Your task to perform on an android device: clear all cookies in the chrome app Image 0: 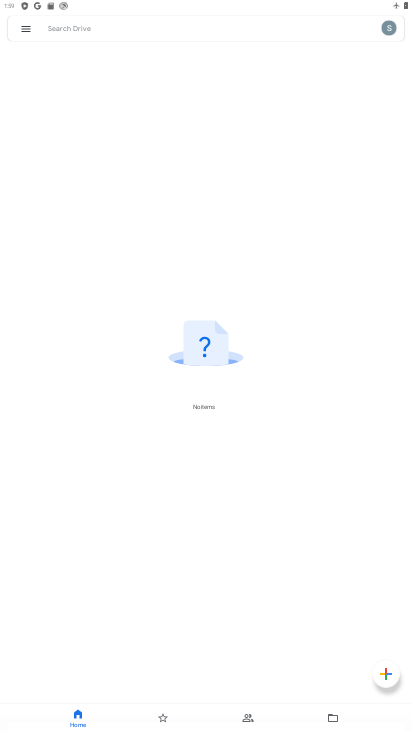
Step 0: press home button
Your task to perform on an android device: clear all cookies in the chrome app Image 1: 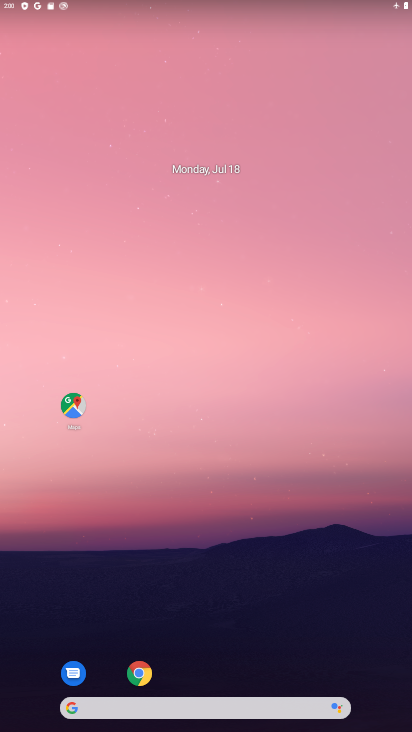
Step 1: click (141, 676)
Your task to perform on an android device: clear all cookies in the chrome app Image 2: 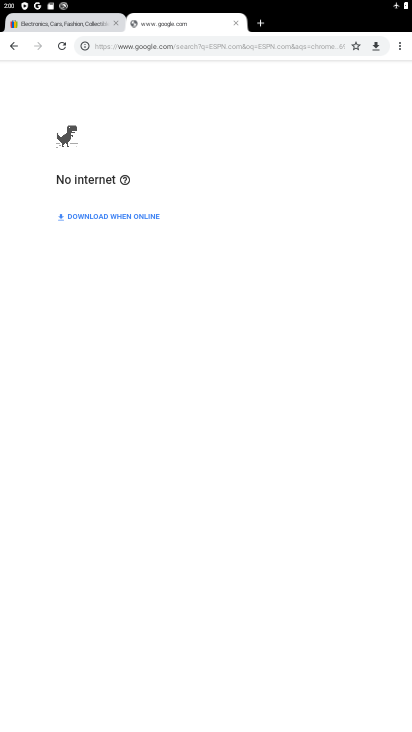
Step 2: click (400, 48)
Your task to perform on an android device: clear all cookies in the chrome app Image 3: 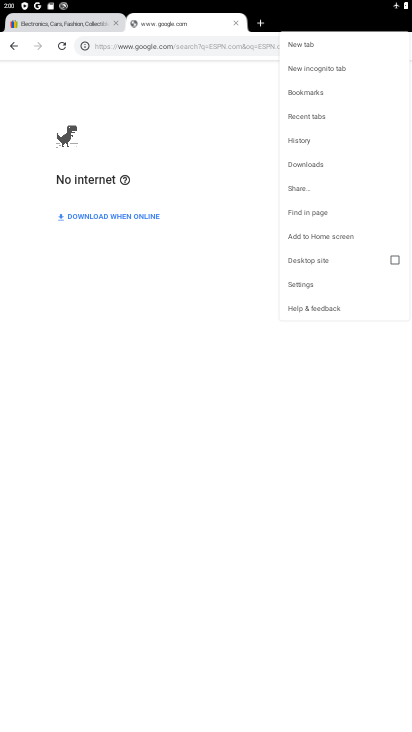
Step 3: click (303, 283)
Your task to perform on an android device: clear all cookies in the chrome app Image 4: 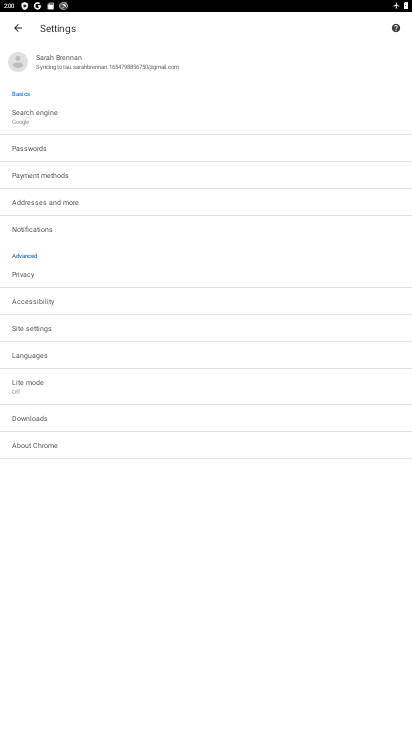
Step 4: click (25, 269)
Your task to perform on an android device: clear all cookies in the chrome app Image 5: 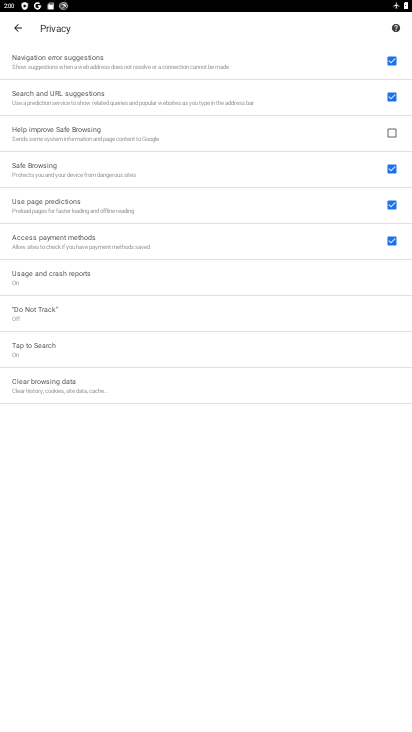
Step 5: click (45, 386)
Your task to perform on an android device: clear all cookies in the chrome app Image 6: 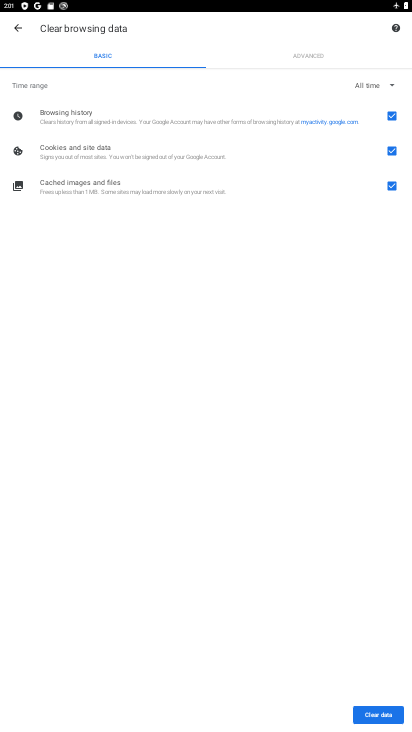
Step 6: click (392, 184)
Your task to perform on an android device: clear all cookies in the chrome app Image 7: 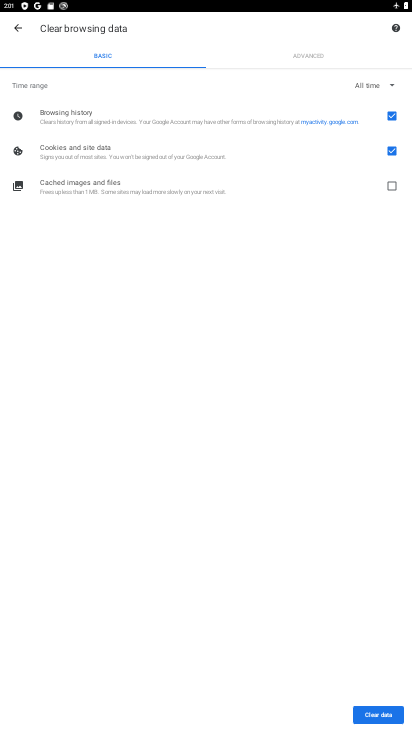
Step 7: click (395, 117)
Your task to perform on an android device: clear all cookies in the chrome app Image 8: 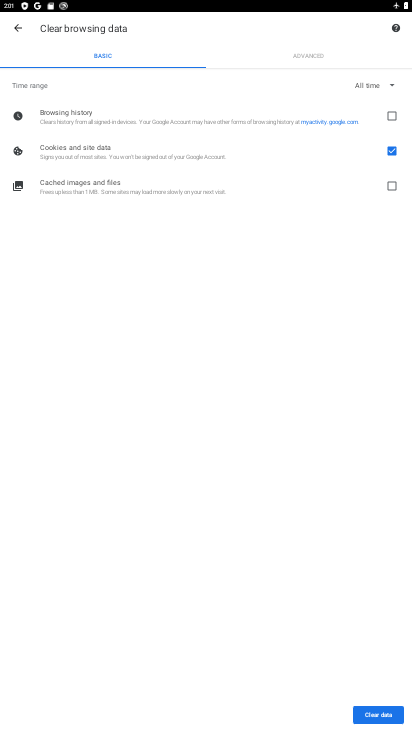
Step 8: click (376, 713)
Your task to perform on an android device: clear all cookies in the chrome app Image 9: 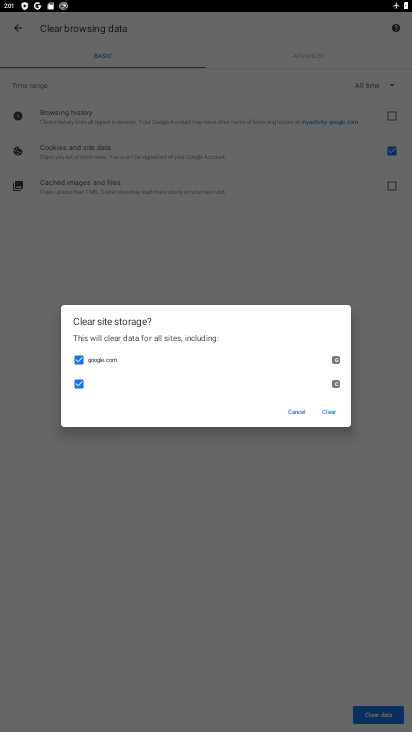
Step 9: click (332, 410)
Your task to perform on an android device: clear all cookies in the chrome app Image 10: 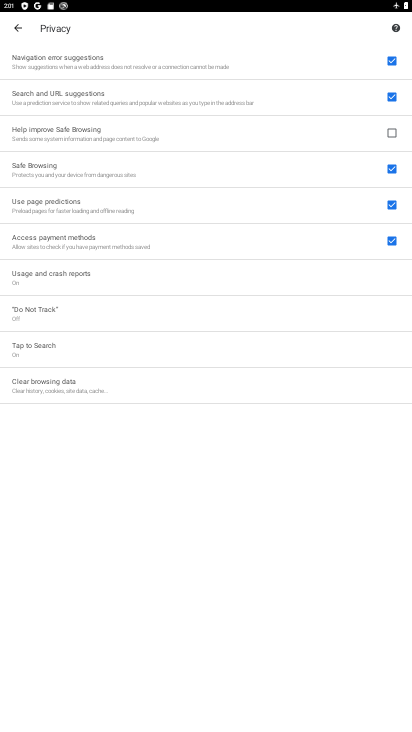
Step 10: task complete